Your task to perform on an android device: Open the Play Movies app and select the watchlist tab. Image 0: 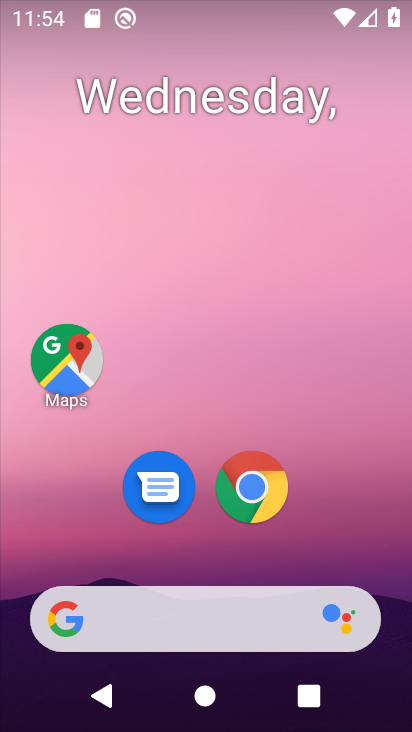
Step 0: drag from (261, 397) to (211, 157)
Your task to perform on an android device: Open the Play Movies app and select the watchlist tab. Image 1: 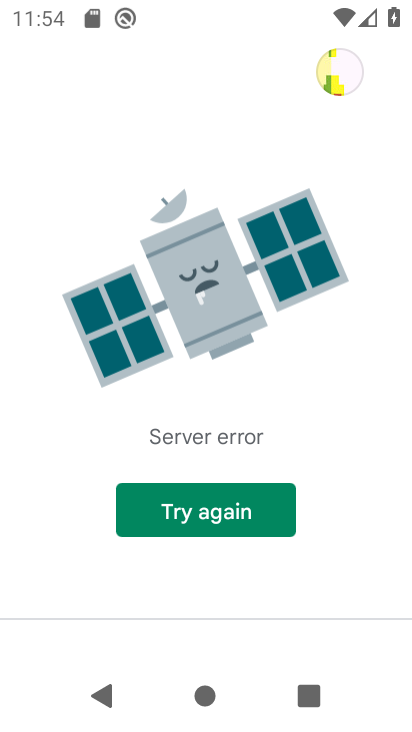
Step 1: press home button
Your task to perform on an android device: Open the Play Movies app and select the watchlist tab. Image 2: 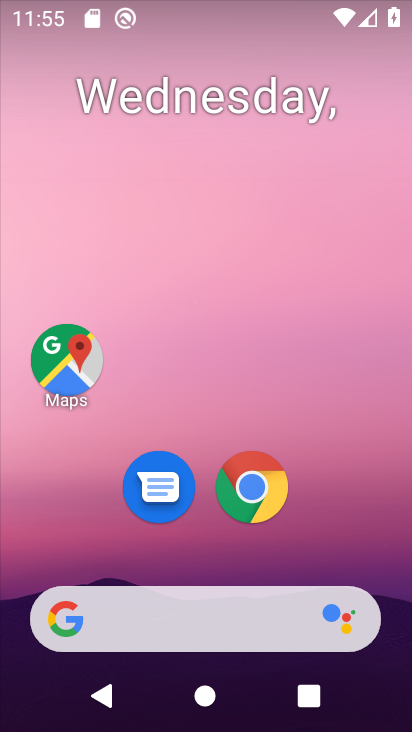
Step 2: drag from (290, 630) to (247, 124)
Your task to perform on an android device: Open the Play Movies app and select the watchlist tab. Image 3: 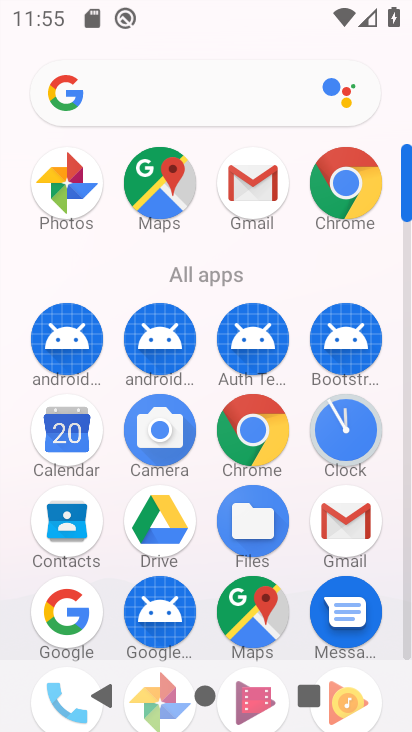
Step 3: drag from (312, 552) to (283, 197)
Your task to perform on an android device: Open the Play Movies app and select the watchlist tab. Image 4: 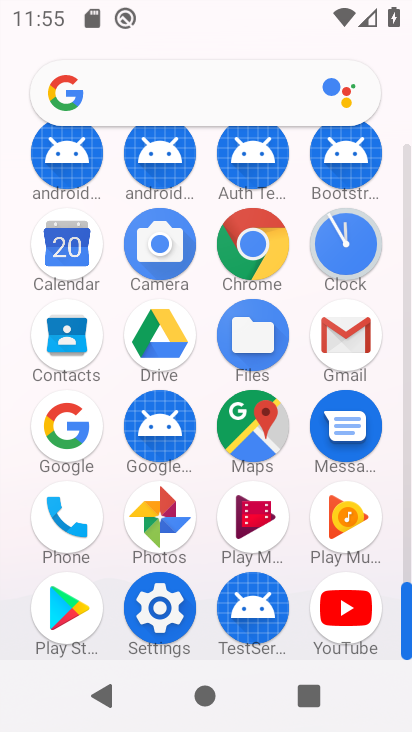
Step 4: click (284, 506)
Your task to perform on an android device: Open the Play Movies app and select the watchlist tab. Image 5: 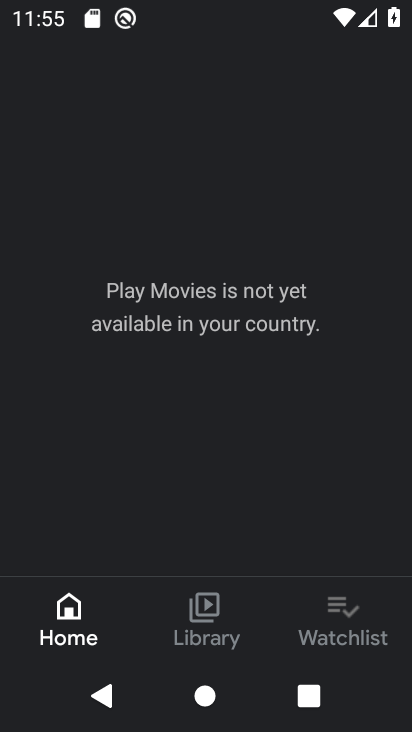
Step 5: drag from (364, 688) to (375, 515)
Your task to perform on an android device: Open the Play Movies app and select the watchlist tab. Image 6: 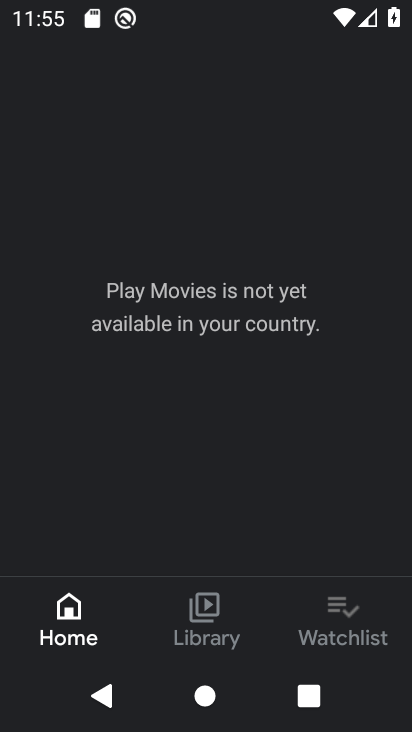
Step 6: drag from (395, 675) to (395, 529)
Your task to perform on an android device: Open the Play Movies app and select the watchlist tab. Image 7: 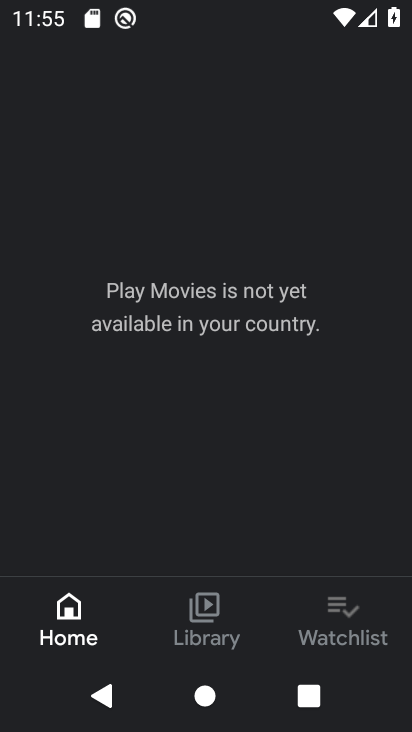
Step 7: click (352, 632)
Your task to perform on an android device: Open the Play Movies app and select the watchlist tab. Image 8: 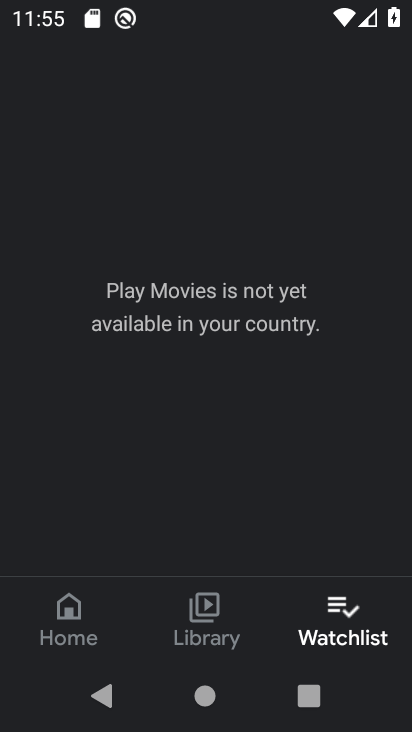
Step 8: task complete